Your task to perform on an android device: Go to location settings Image 0: 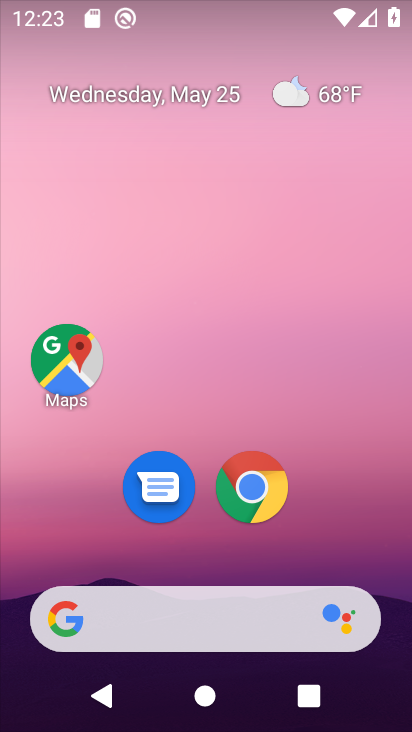
Step 0: drag from (230, 482) to (202, 52)
Your task to perform on an android device: Go to location settings Image 1: 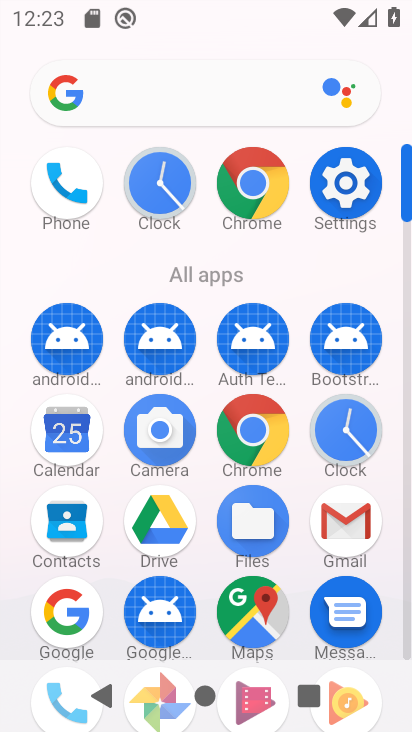
Step 1: click (340, 182)
Your task to perform on an android device: Go to location settings Image 2: 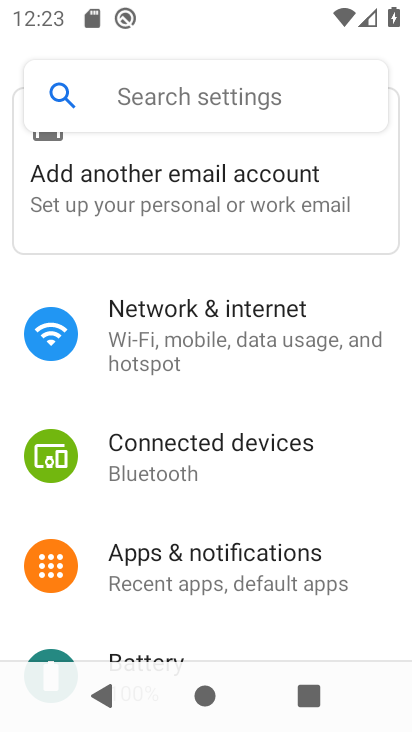
Step 2: drag from (195, 622) to (197, 147)
Your task to perform on an android device: Go to location settings Image 3: 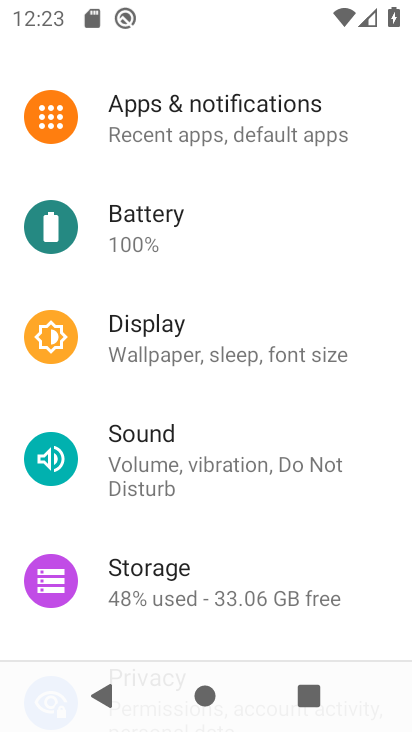
Step 3: drag from (186, 588) to (227, 135)
Your task to perform on an android device: Go to location settings Image 4: 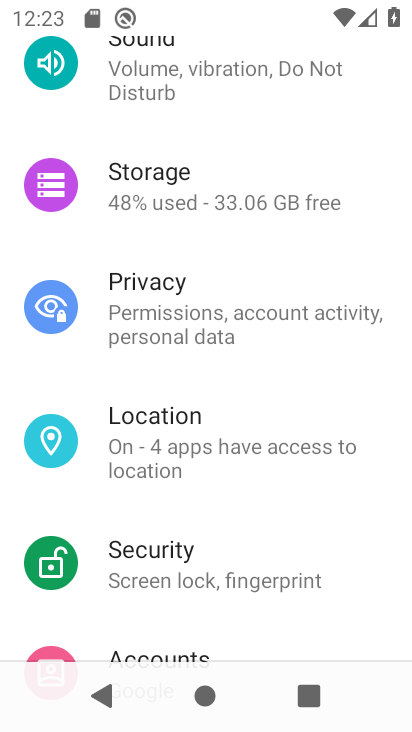
Step 4: click (170, 425)
Your task to perform on an android device: Go to location settings Image 5: 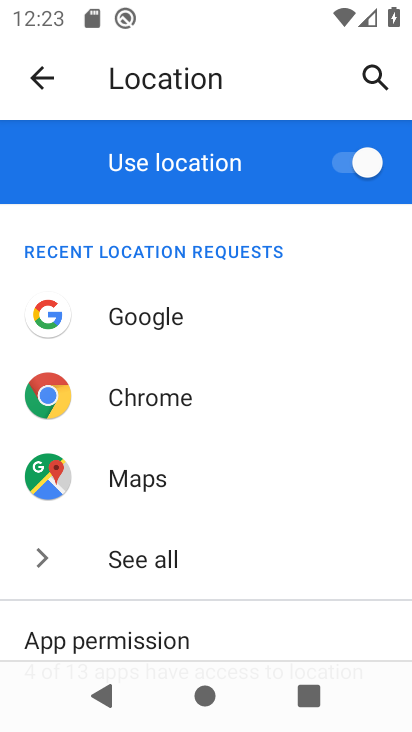
Step 5: task complete